Your task to perform on an android device: make emails show in primary in the gmail app Image 0: 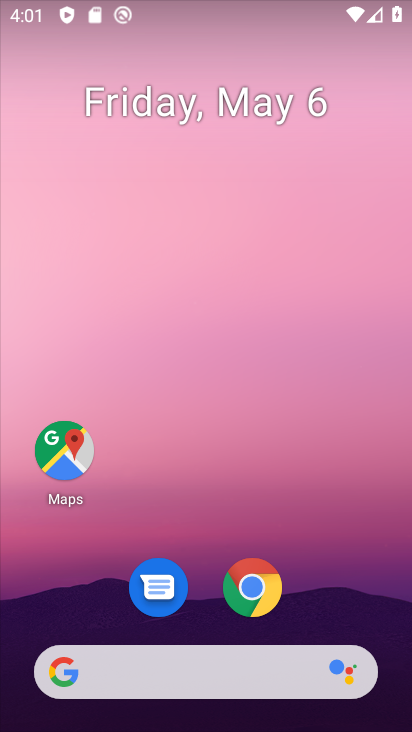
Step 0: drag from (293, 692) to (371, 221)
Your task to perform on an android device: make emails show in primary in the gmail app Image 1: 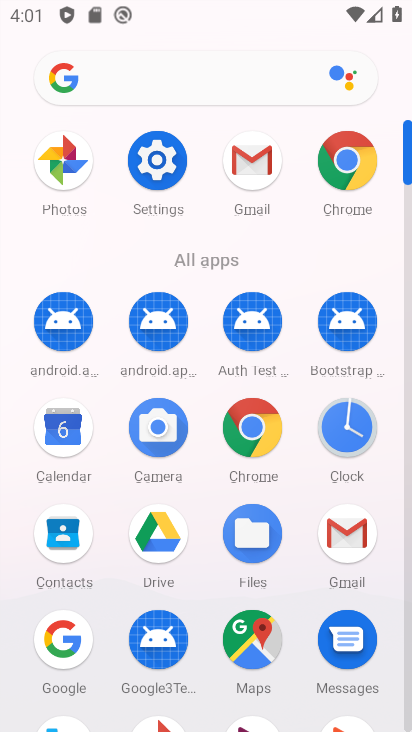
Step 1: click (255, 167)
Your task to perform on an android device: make emails show in primary in the gmail app Image 2: 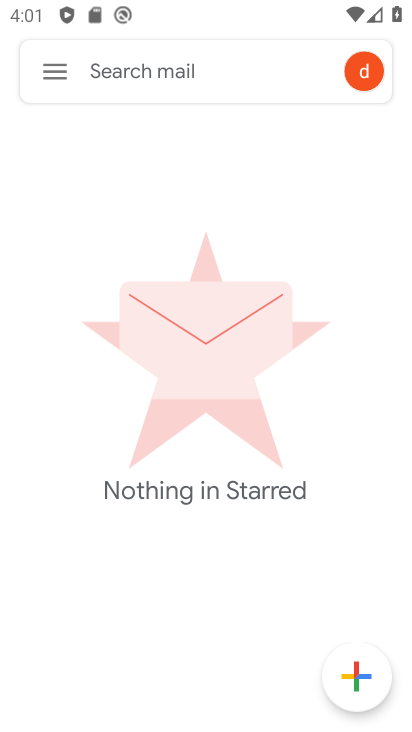
Step 2: click (70, 67)
Your task to perform on an android device: make emails show in primary in the gmail app Image 3: 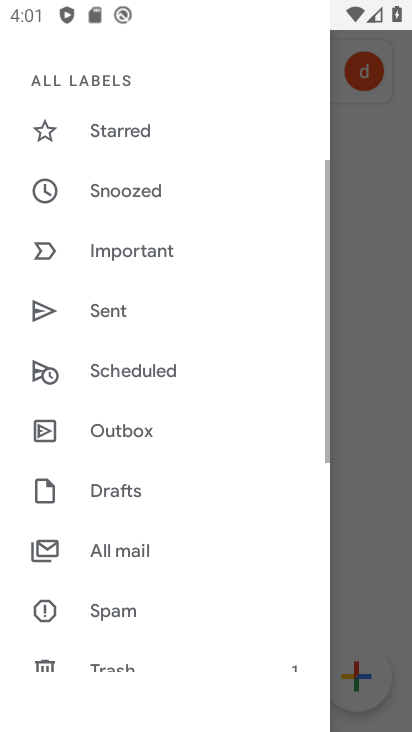
Step 3: drag from (147, 573) to (338, 269)
Your task to perform on an android device: make emails show in primary in the gmail app Image 4: 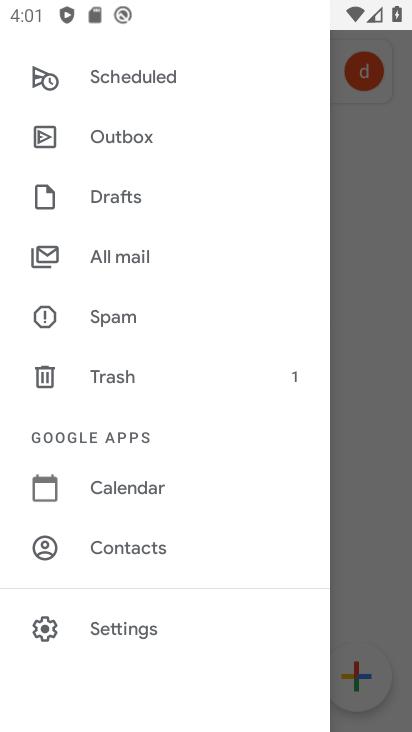
Step 4: click (136, 622)
Your task to perform on an android device: make emails show in primary in the gmail app Image 5: 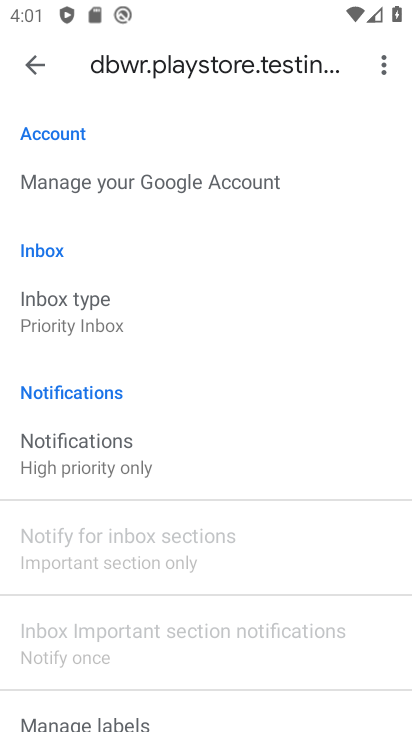
Step 5: click (180, 563)
Your task to perform on an android device: make emails show in primary in the gmail app Image 6: 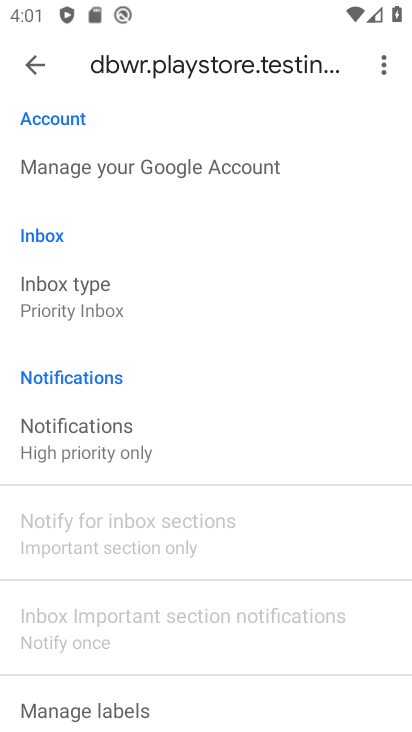
Step 6: click (170, 315)
Your task to perform on an android device: make emails show in primary in the gmail app Image 7: 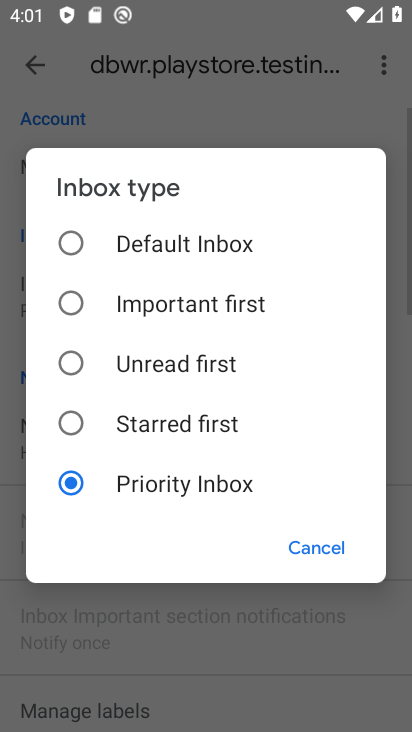
Step 7: click (152, 251)
Your task to perform on an android device: make emails show in primary in the gmail app Image 8: 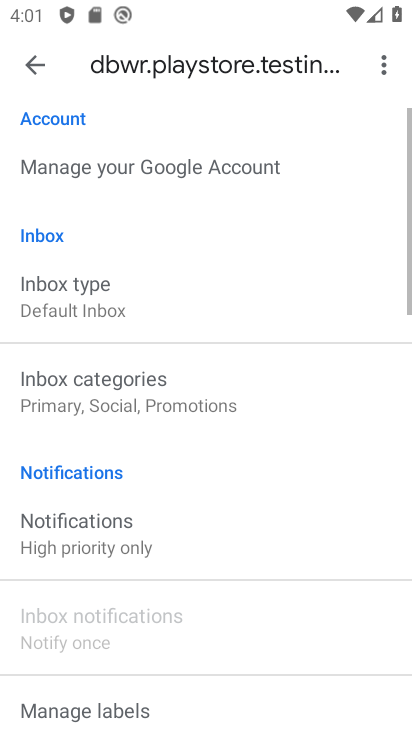
Step 8: click (122, 409)
Your task to perform on an android device: make emails show in primary in the gmail app Image 9: 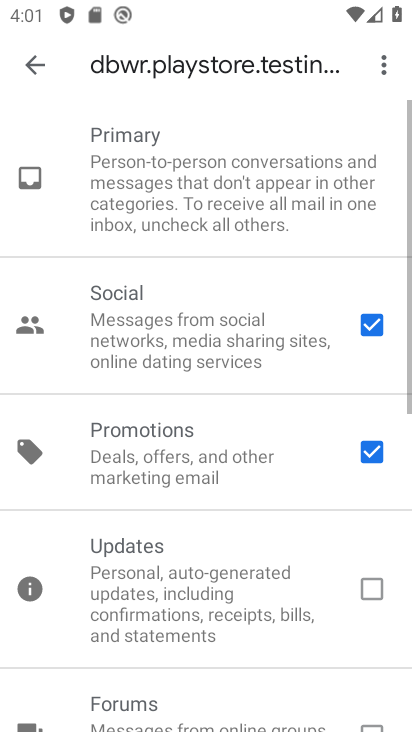
Step 9: click (376, 440)
Your task to perform on an android device: make emails show in primary in the gmail app Image 10: 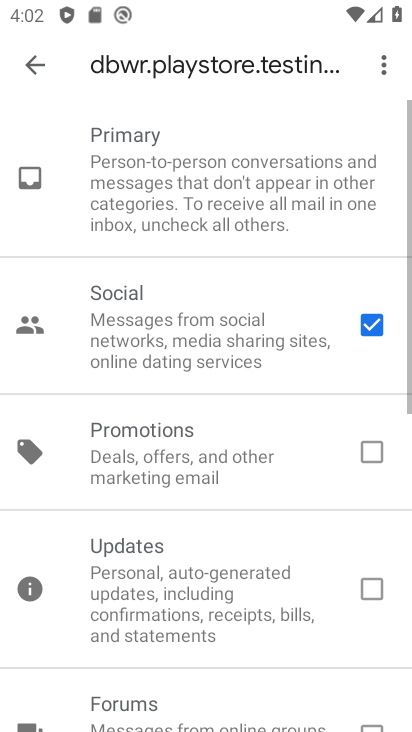
Step 10: click (383, 333)
Your task to perform on an android device: make emails show in primary in the gmail app Image 11: 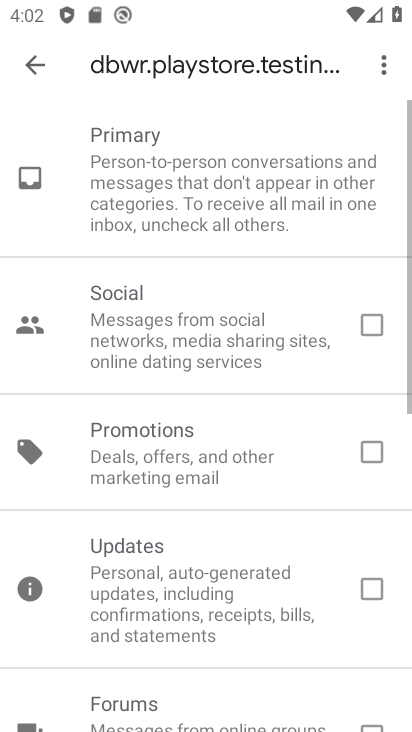
Step 11: click (250, 177)
Your task to perform on an android device: make emails show in primary in the gmail app Image 12: 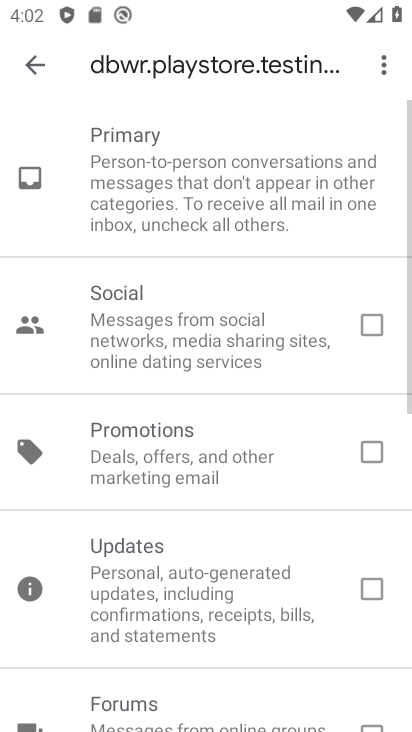
Step 12: task complete